Your task to perform on an android device: Show me popular games on the Play Store Image 0: 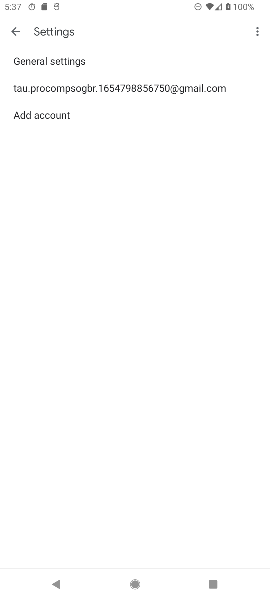
Step 0: click (11, 30)
Your task to perform on an android device: Show me popular games on the Play Store Image 1: 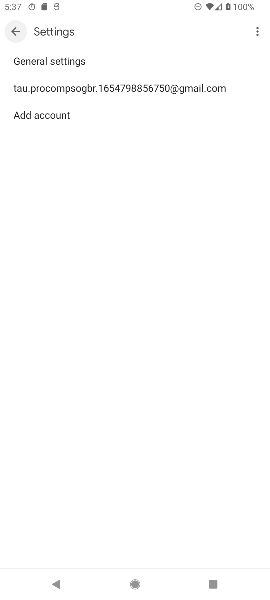
Step 1: click (10, 31)
Your task to perform on an android device: Show me popular games on the Play Store Image 2: 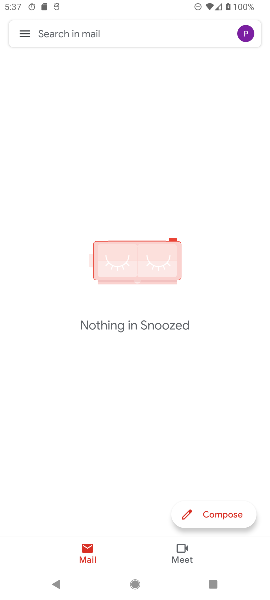
Step 2: press back button
Your task to perform on an android device: Show me popular games on the Play Store Image 3: 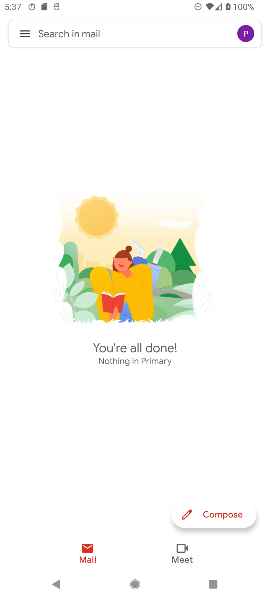
Step 3: press home button
Your task to perform on an android device: Show me popular games on the Play Store Image 4: 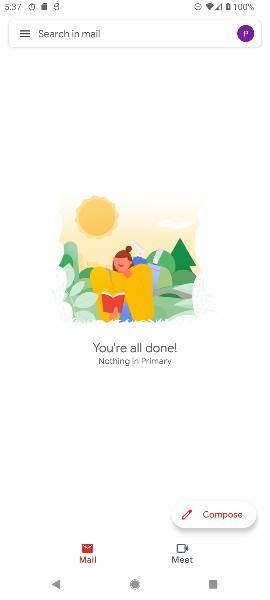
Step 4: press home button
Your task to perform on an android device: Show me popular games on the Play Store Image 5: 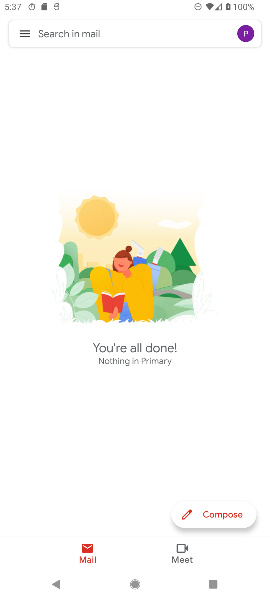
Step 5: press home button
Your task to perform on an android device: Show me popular games on the Play Store Image 6: 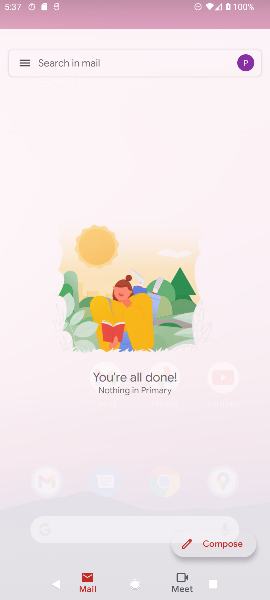
Step 6: press home button
Your task to perform on an android device: Show me popular games on the Play Store Image 7: 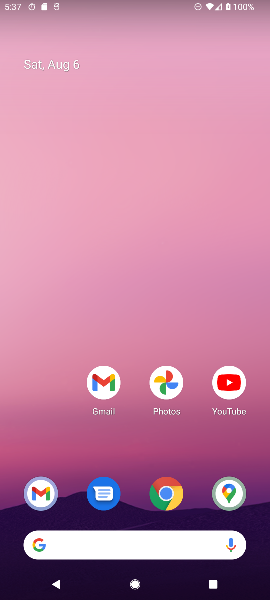
Step 7: drag from (120, 541) to (116, 155)
Your task to perform on an android device: Show me popular games on the Play Store Image 8: 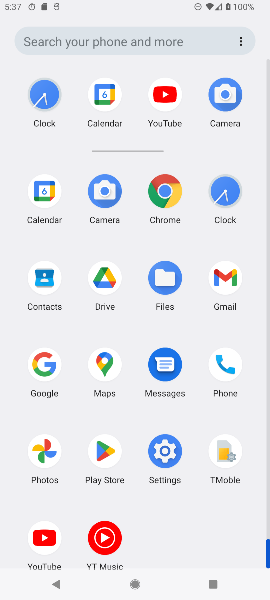
Step 8: click (159, 56)
Your task to perform on an android device: Show me popular games on the Play Store Image 9: 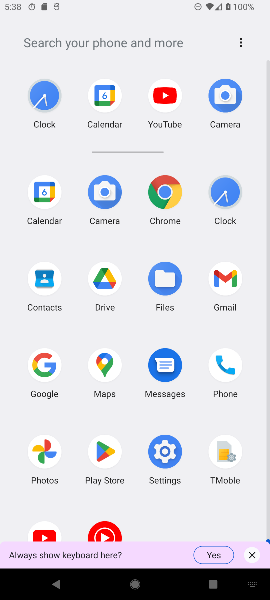
Step 9: click (101, 459)
Your task to perform on an android device: Show me popular games on the Play Store Image 10: 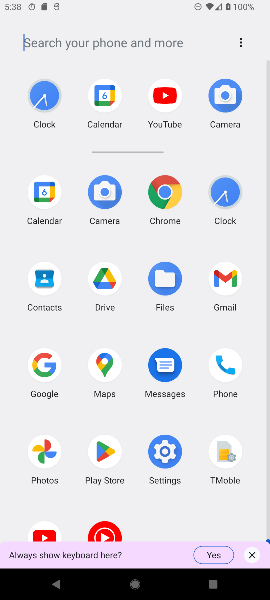
Step 10: click (101, 459)
Your task to perform on an android device: Show me popular games on the Play Store Image 11: 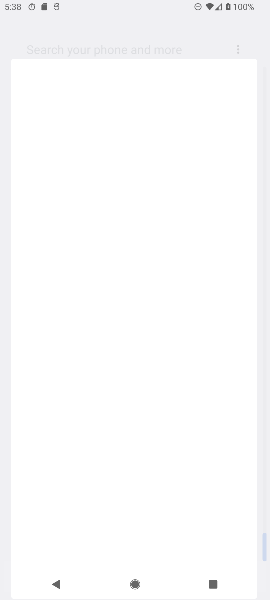
Step 11: click (99, 459)
Your task to perform on an android device: Show me popular games on the Play Store Image 12: 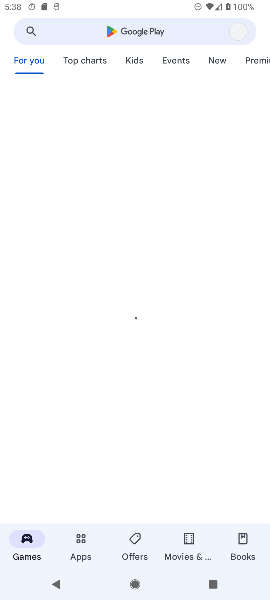
Step 12: click (99, 459)
Your task to perform on an android device: Show me popular games on the Play Store Image 13: 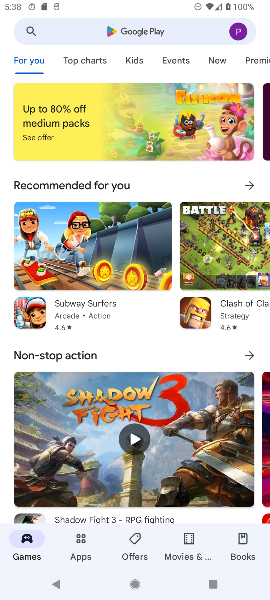
Step 13: click (83, 32)
Your task to perform on an android device: Show me popular games on the Play Store Image 14: 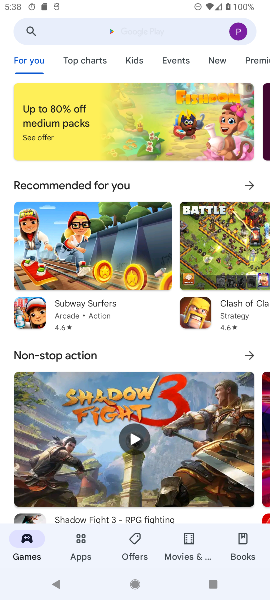
Step 14: click (83, 32)
Your task to perform on an android device: Show me popular games on the Play Store Image 15: 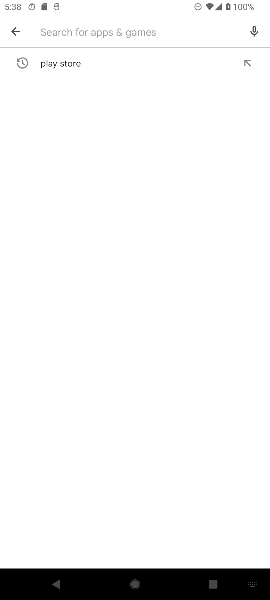
Step 15: type "popular games"
Your task to perform on an android device: Show me popular games on the Play Store Image 16: 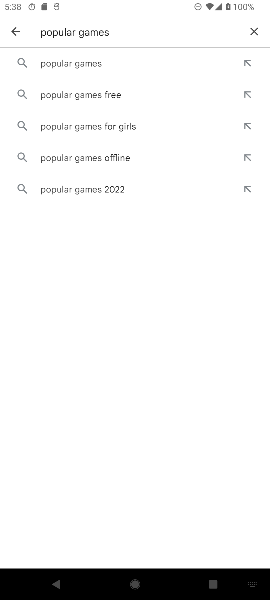
Step 16: click (59, 59)
Your task to perform on an android device: Show me popular games on the Play Store Image 17: 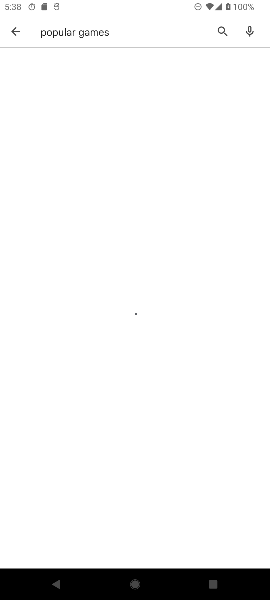
Step 17: click (57, 58)
Your task to perform on an android device: Show me popular games on the Play Store Image 18: 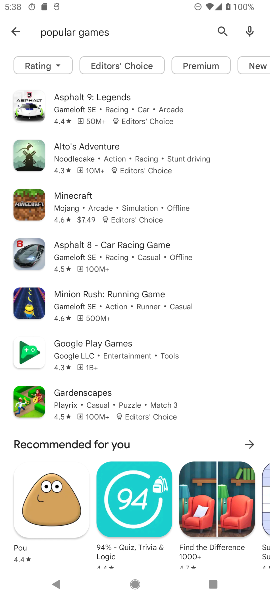
Step 18: drag from (127, 323) to (39, 21)
Your task to perform on an android device: Show me popular games on the Play Store Image 19: 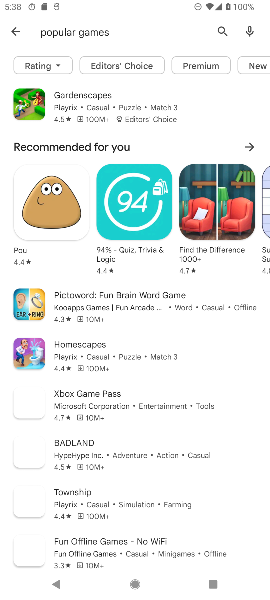
Step 19: click (85, 204)
Your task to perform on an android device: Show me popular games on the Play Store Image 20: 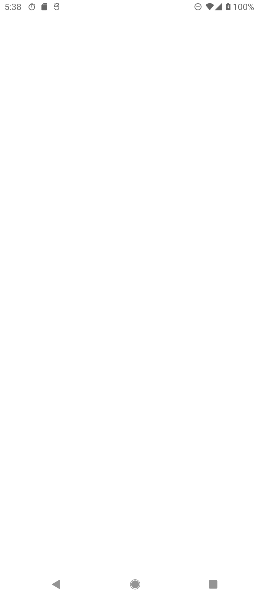
Step 20: task complete